Your task to perform on an android device: Open Amazon Image 0: 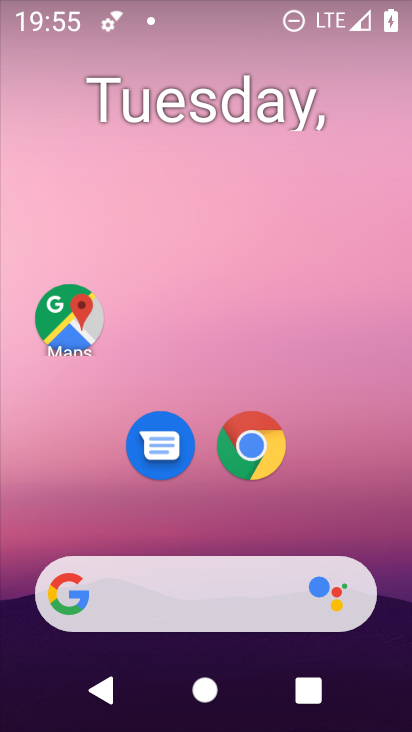
Step 0: drag from (207, 545) to (189, 31)
Your task to perform on an android device: Open Amazon Image 1: 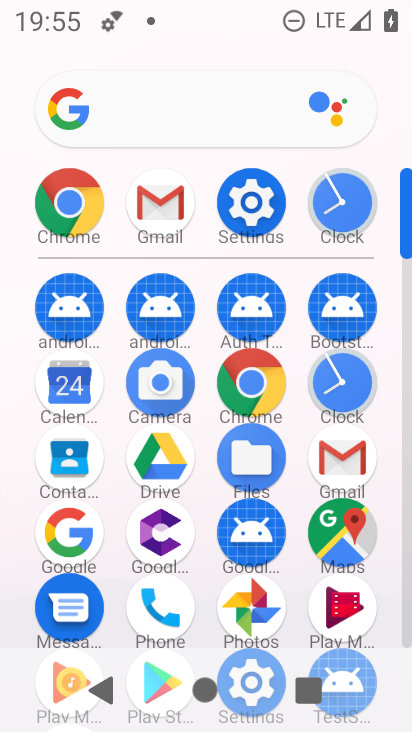
Step 1: click (66, 211)
Your task to perform on an android device: Open Amazon Image 2: 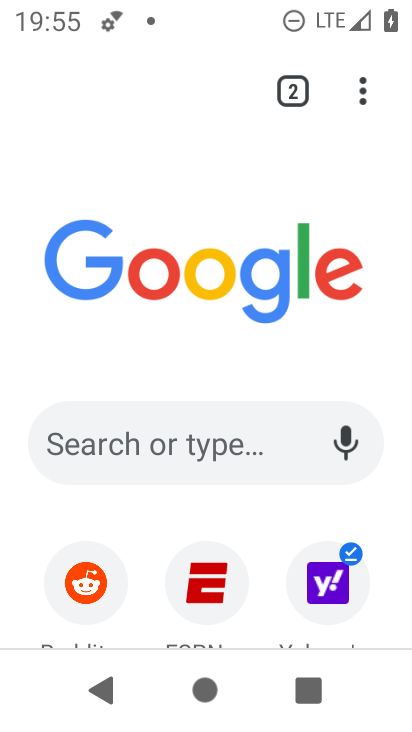
Step 2: task complete